Your task to perform on an android device: Clear the shopping cart on ebay. Search for "razer blackwidow" on ebay, select the first entry, add it to the cart, then select checkout. Image 0: 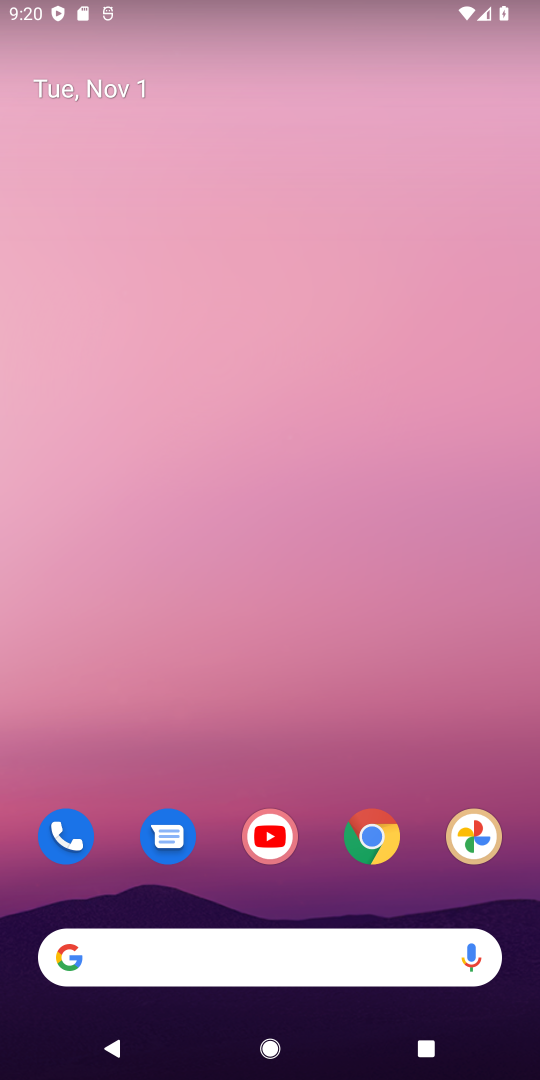
Step 0: click (374, 830)
Your task to perform on an android device: Clear the shopping cart on ebay. Search for "razer blackwidow" on ebay, select the first entry, add it to the cart, then select checkout. Image 1: 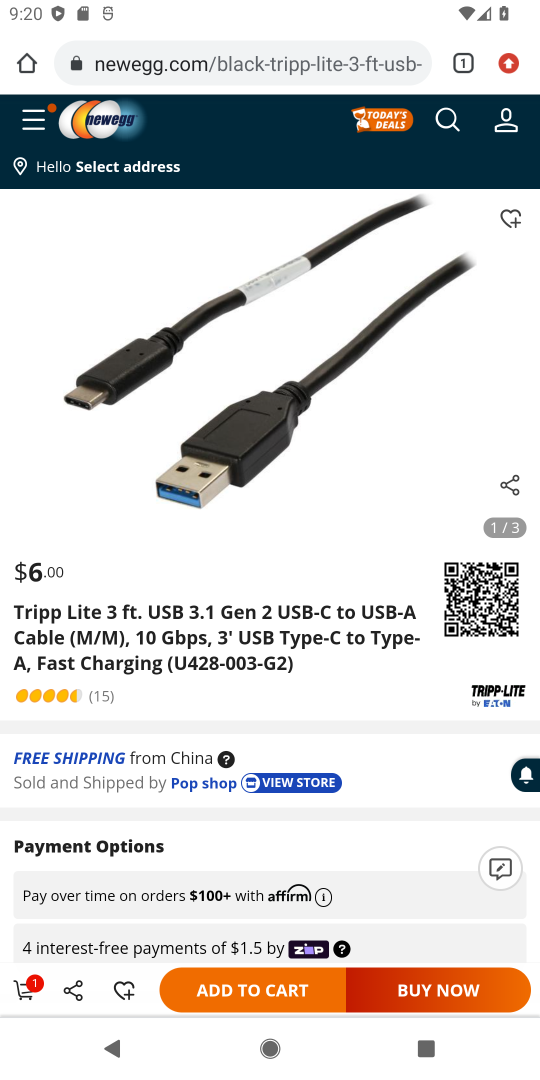
Step 1: click (173, 61)
Your task to perform on an android device: Clear the shopping cart on ebay. Search for "razer blackwidow" on ebay, select the first entry, add it to the cart, then select checkout. Image 2: 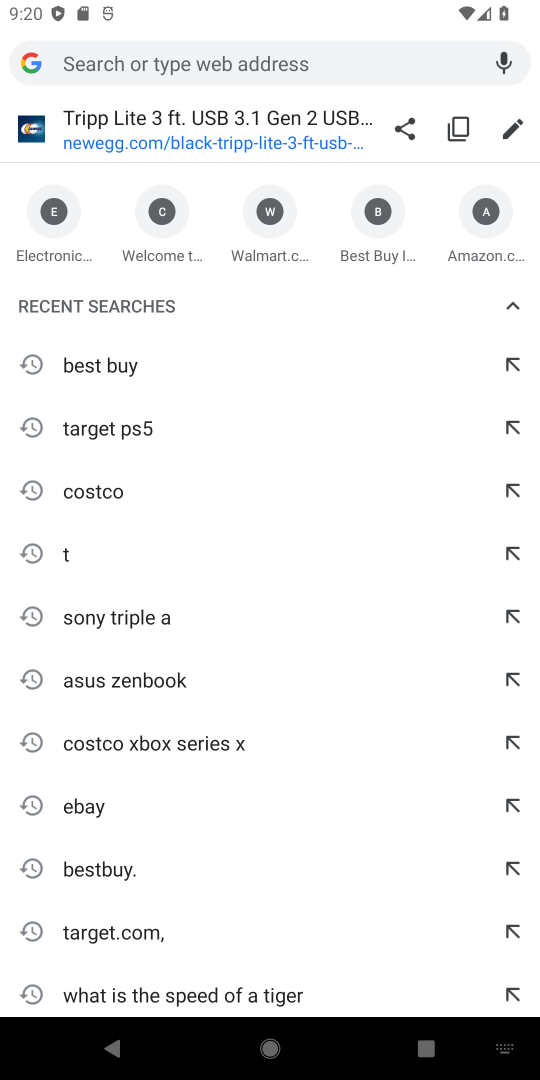
Step 2: type "ebay"
Your task to perform on an android device: Clear the shopping cart on ebay. Search for "razer blackwidow" on ebay, select the first entry, add it to the cart, then select checkout. Image 3: 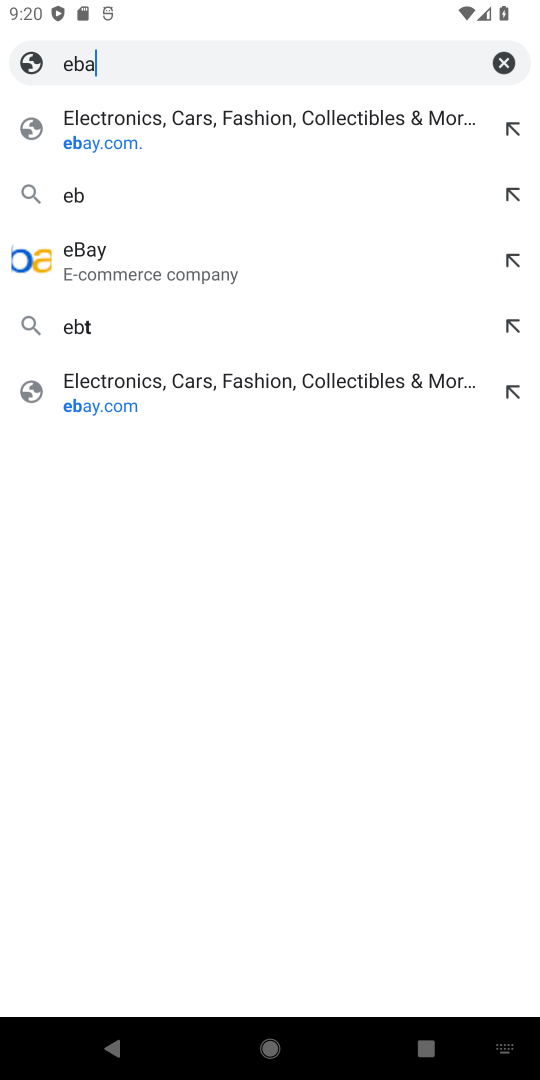
Step 3: type ""
Your task to perform on an android device: Clear the shopping cart on ebay. Search for "razer blackwidow" on ebay, select the first entry, add it to the cart, then select checkout. Image 4: 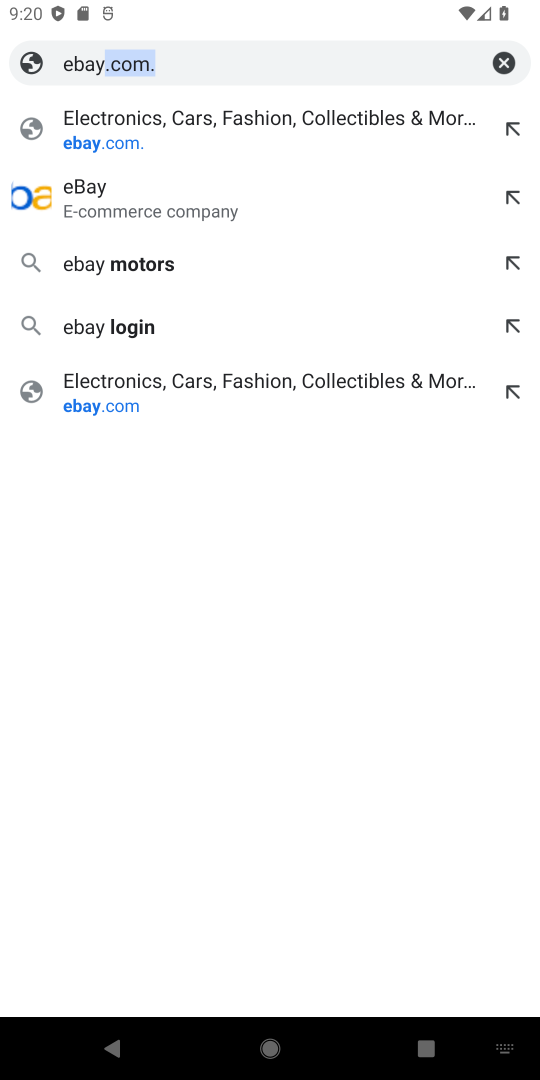
Step 4: click (160, 157)
Your task to perform on an android device: Clear the shopping cart on ebay. Search for "razer blackwidow" on ebay, select the first entry, add it to the cart, then select checkout. Image 5: 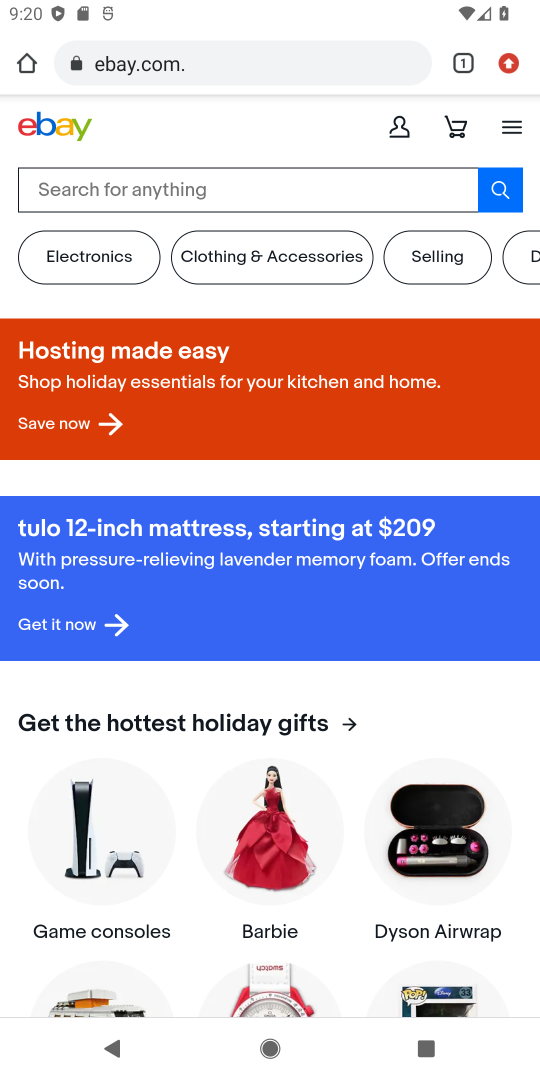
Step 5: click (134, 197)
Your task to perform on an android device: Clear the shopping cart on ebay. Search for "razer blackwidow" on ebay, select the first entry, add it to the cart, then select checkout. Image 6: 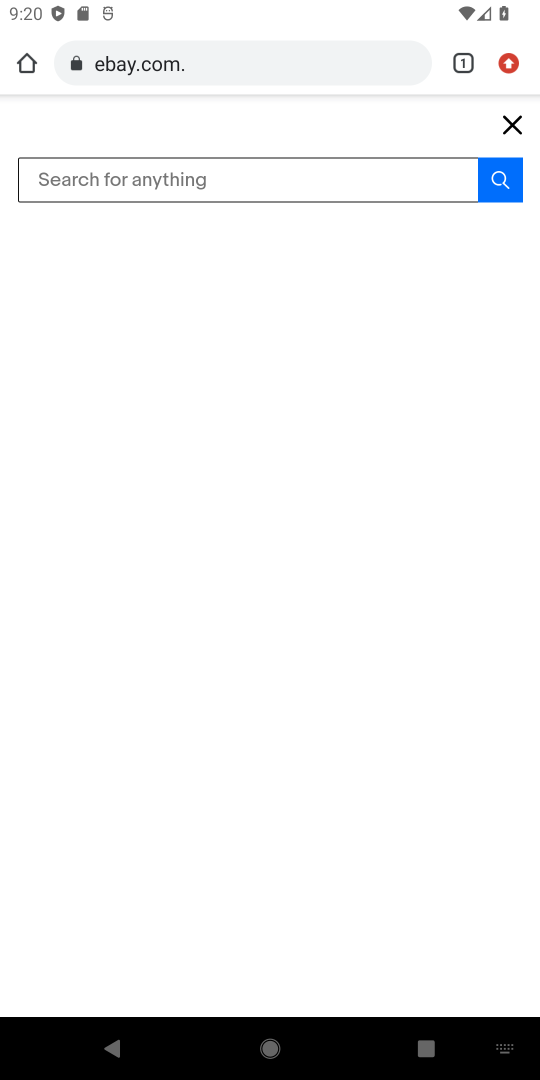
Step 6: type "razer blackwidow"
Your task to perform on an android device: Clear the shopping cart on ebay. Search for "razer blackwidow" on ebay, select the first entry, add it to the cart, then select checkout. Image 7: 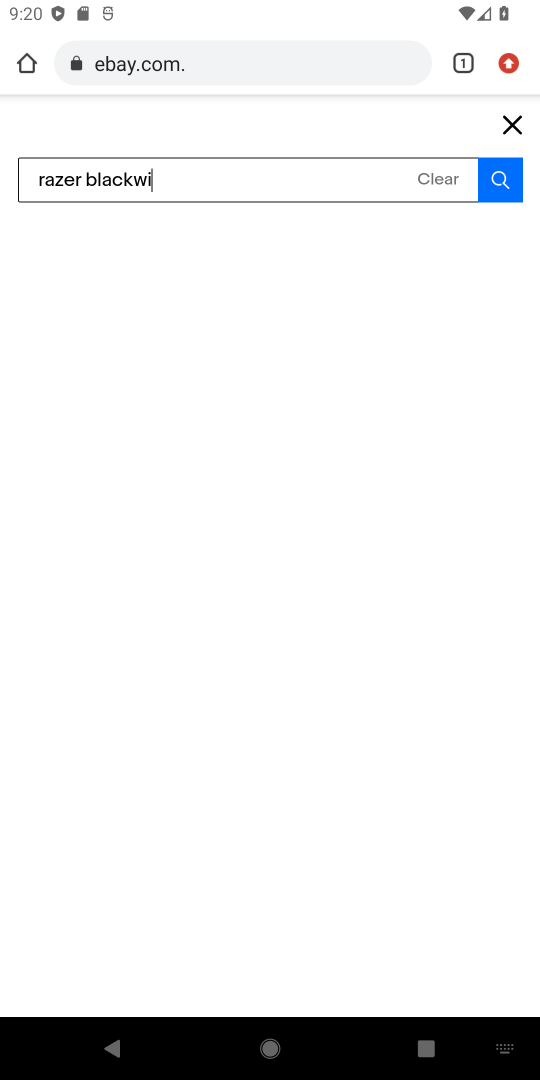
Step 7: type ""
Your task to perform on an android device: Clear the shopping cart on ebay. Search for "razer blackwidow" on ebay, select the first entry, add it to the cart, then select checkout. Image 8: 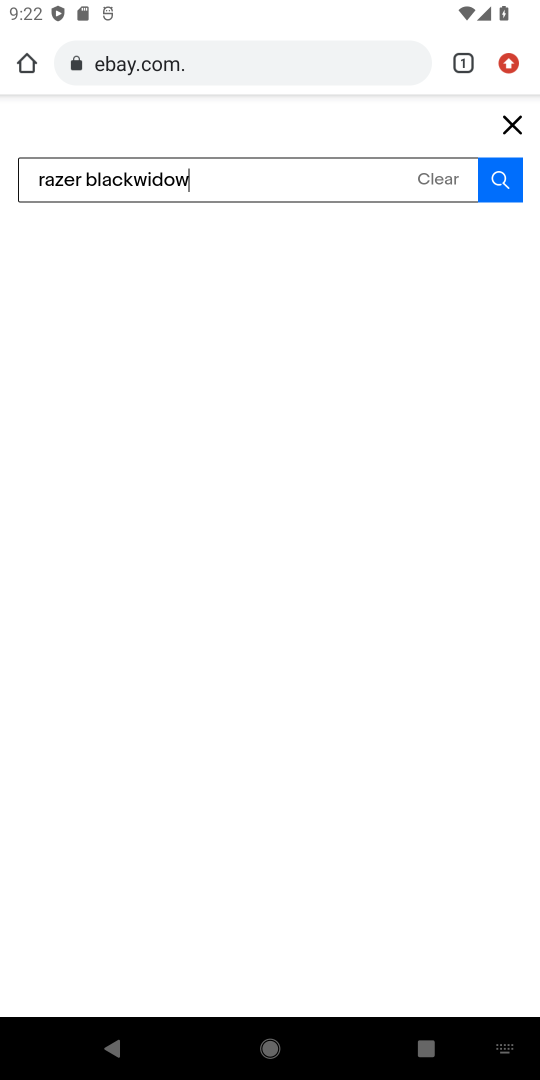
Step 8: click (191, 471)
Your task to perform on an android device: Clear the shopping cart on ebay. Search for "razer blackwidow" on ebay, select the first entry, add it to the cart, then select checkout. Image 9: 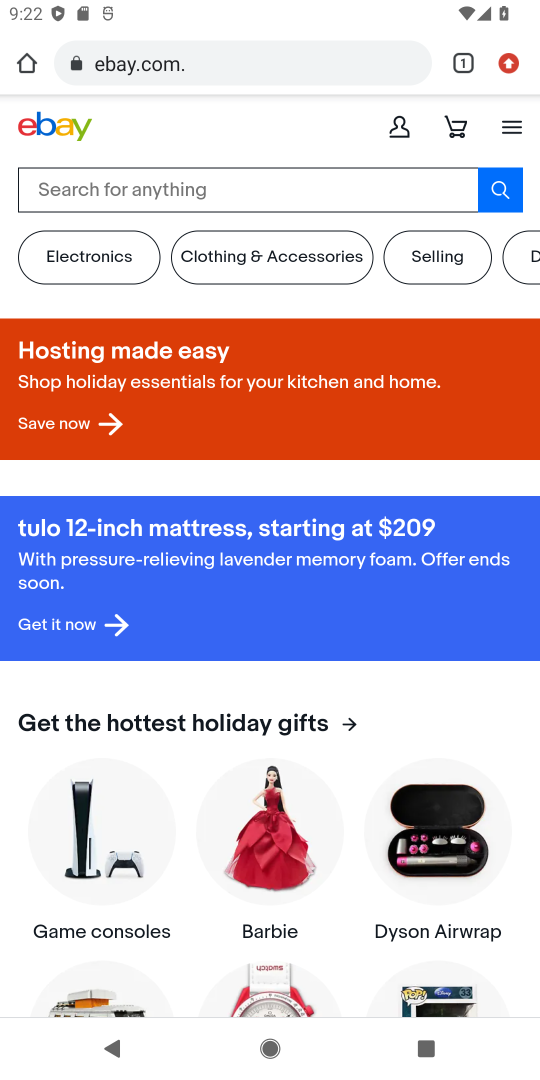
Step 9: click (234, 199)
Your task to perform on an android device: Clear the shopping cart on ebay. Search for "razer blackwidow" on ebay, select the first entry, add it to the cart, then select checkout. Image 10: 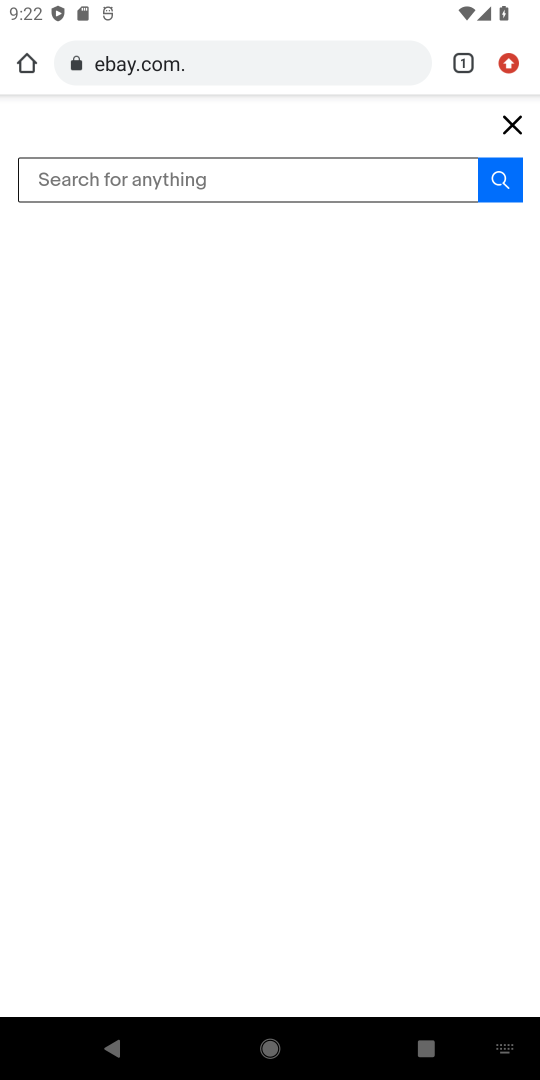
Step 10: type "razer blackwidow"
Your task to perform on an android device: Clear the shopping cart on ebay. Search for "razer blackwidow" on ebay, select the first entry, add it to the cart, then select checkout. Image 11: 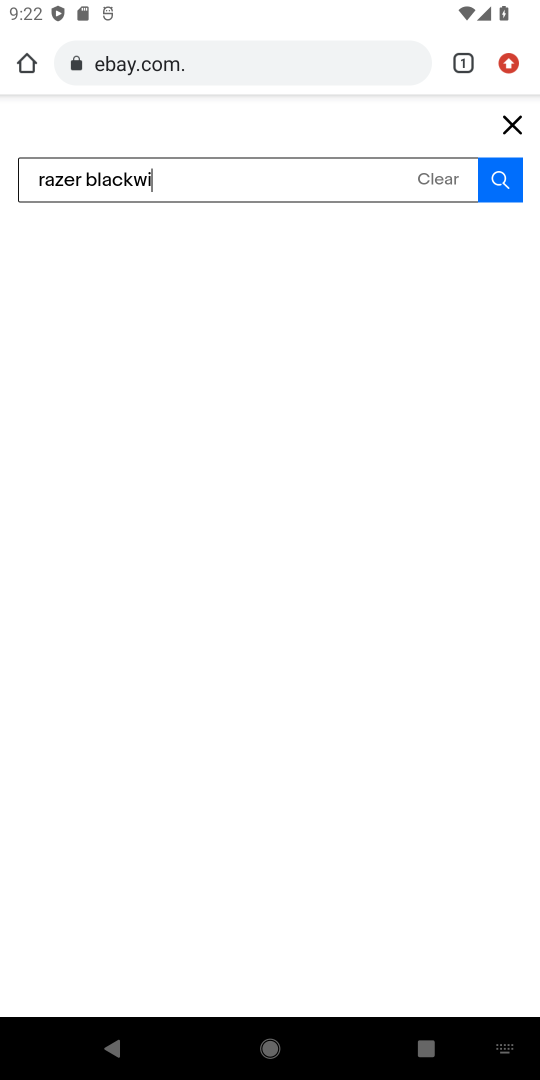
Step 11: type ""
Your task to perform on an android device: Clear the shopping cart on ebay. Search for "razer blackwidow" on ebay, select the first entry, add it to the cart, then select checkout. Image 12: 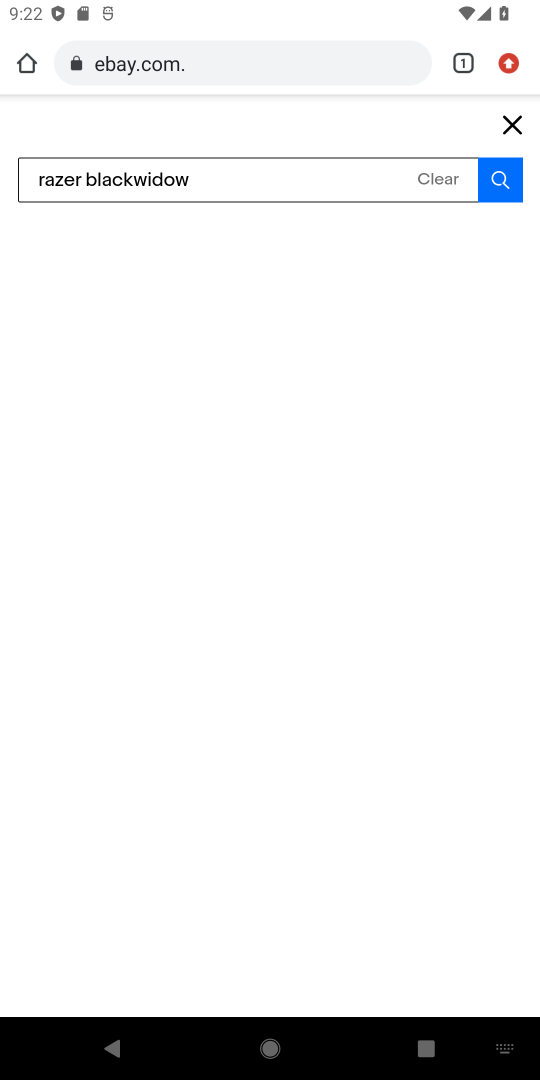
Step 12: click (496, 184)
Your task to perform on an android device: Clear the shopping cart on ebay. Search for "razer blackwidow" on ebay, select the first entry, add it to the cart, then select checkout. Image 13: 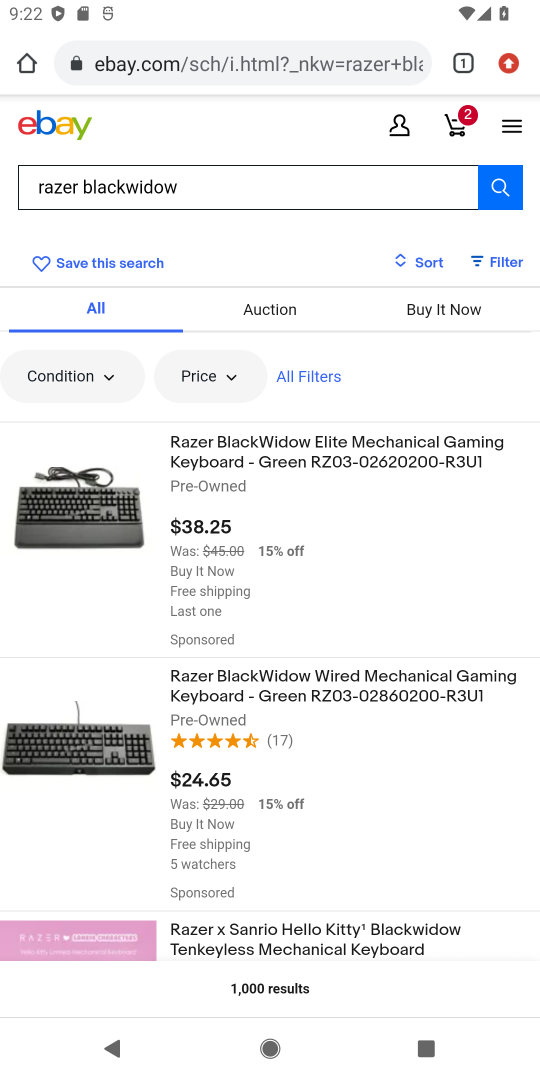
Step 13: click (309, 442)
Your task to perform on an android device: Clear the shopping cart on ebay. Search for "razer blackwidow" on ebay, select the first entry, add it to the cart, then select checkout. Image 14: 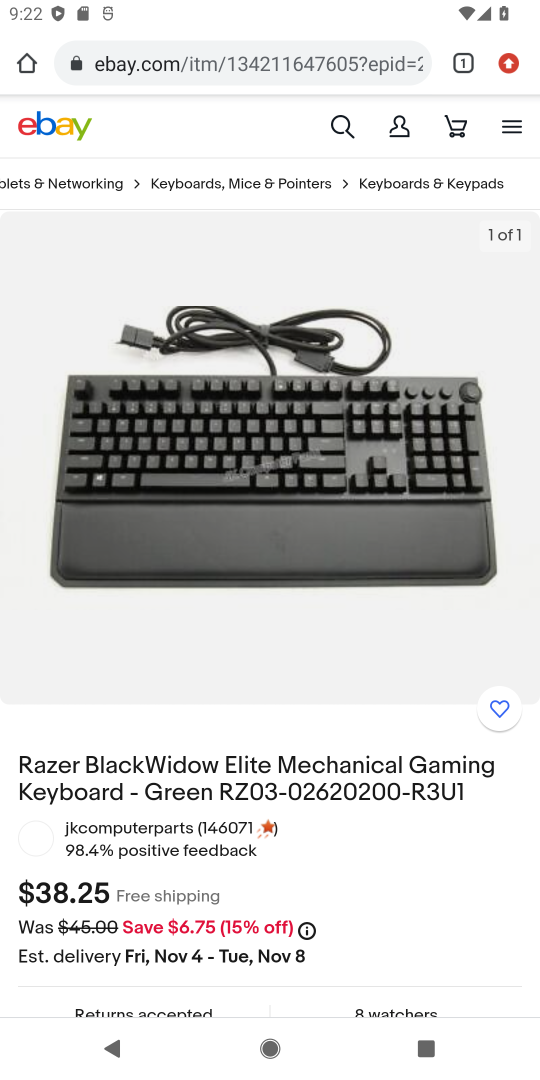
Step 14: drag from (268, 815) to (303, 489)
Your task to perform on an android device: Clear the shopping cart on ebay. Search for "razer blackwidow" on ebay, select the first entry, add it to the cart, then select checkout. Image 15: 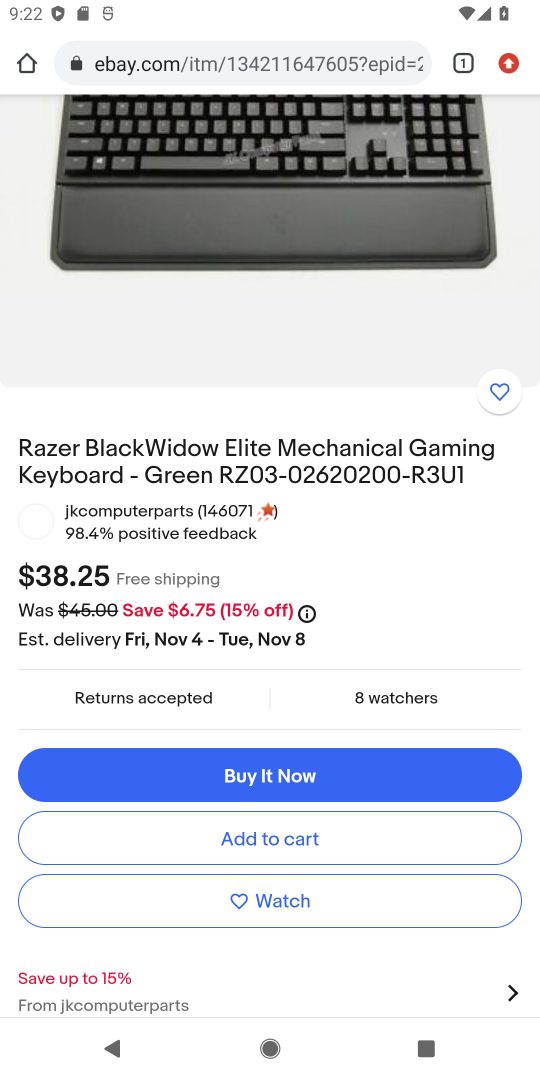
Step 15: click (251, 828)
Your task to perform on an android device: Clear the shopping cart on ebay. Search for "razer blackwidow" on ebay, select the first entry, add it to the cart, then select checkout. Image 16: 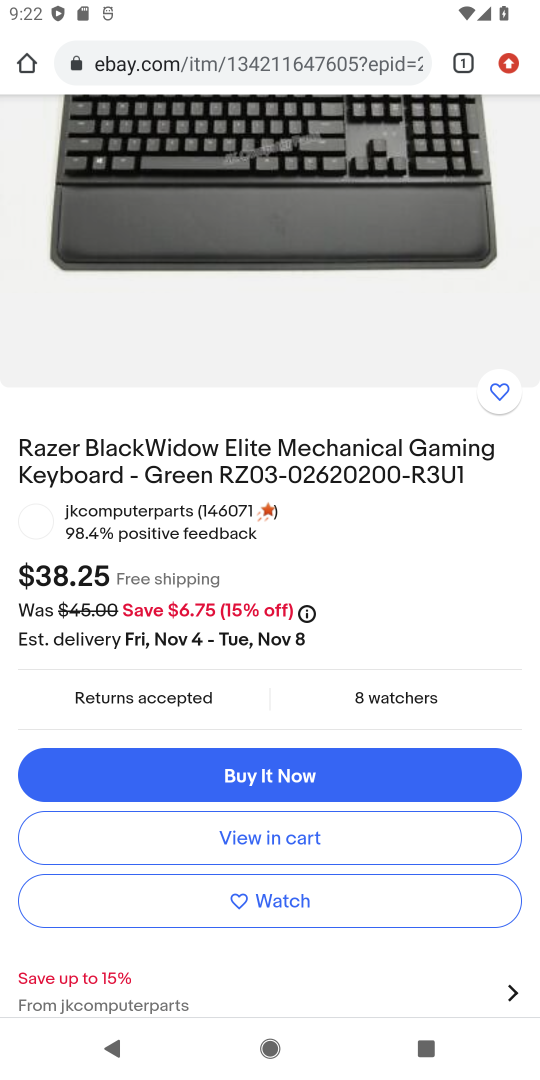
Step 16: click (251, 824)
Your task to perform on an android device: Clear the shopping cart on ebay. Search for "razer blackwidow" on ebay, select the first entry, add it to the cart, then select checkout. Image 17: 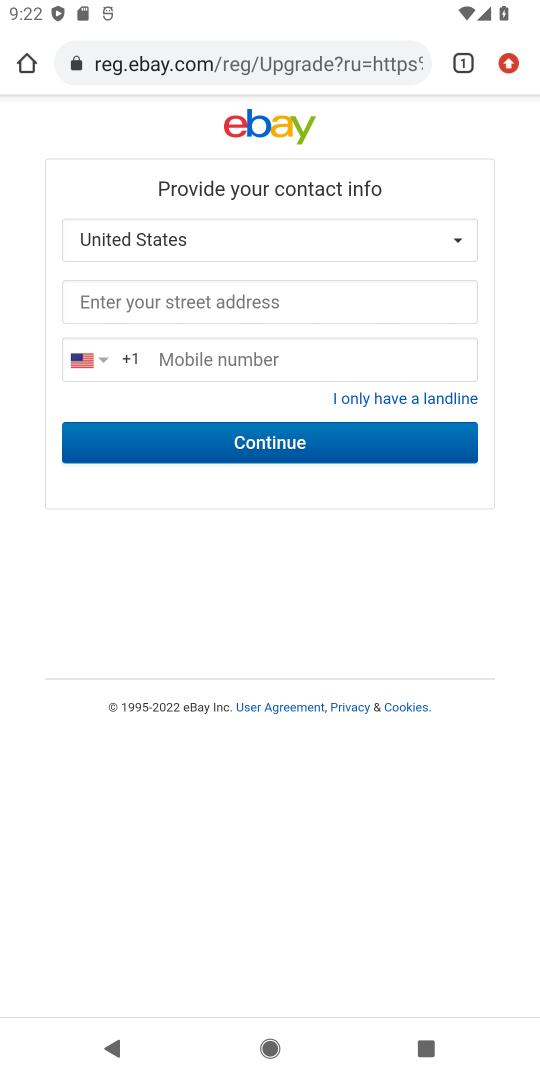
Step 17: task complete